Your task to perform on an android device: manage bookmarks in the chrome app Image 0: 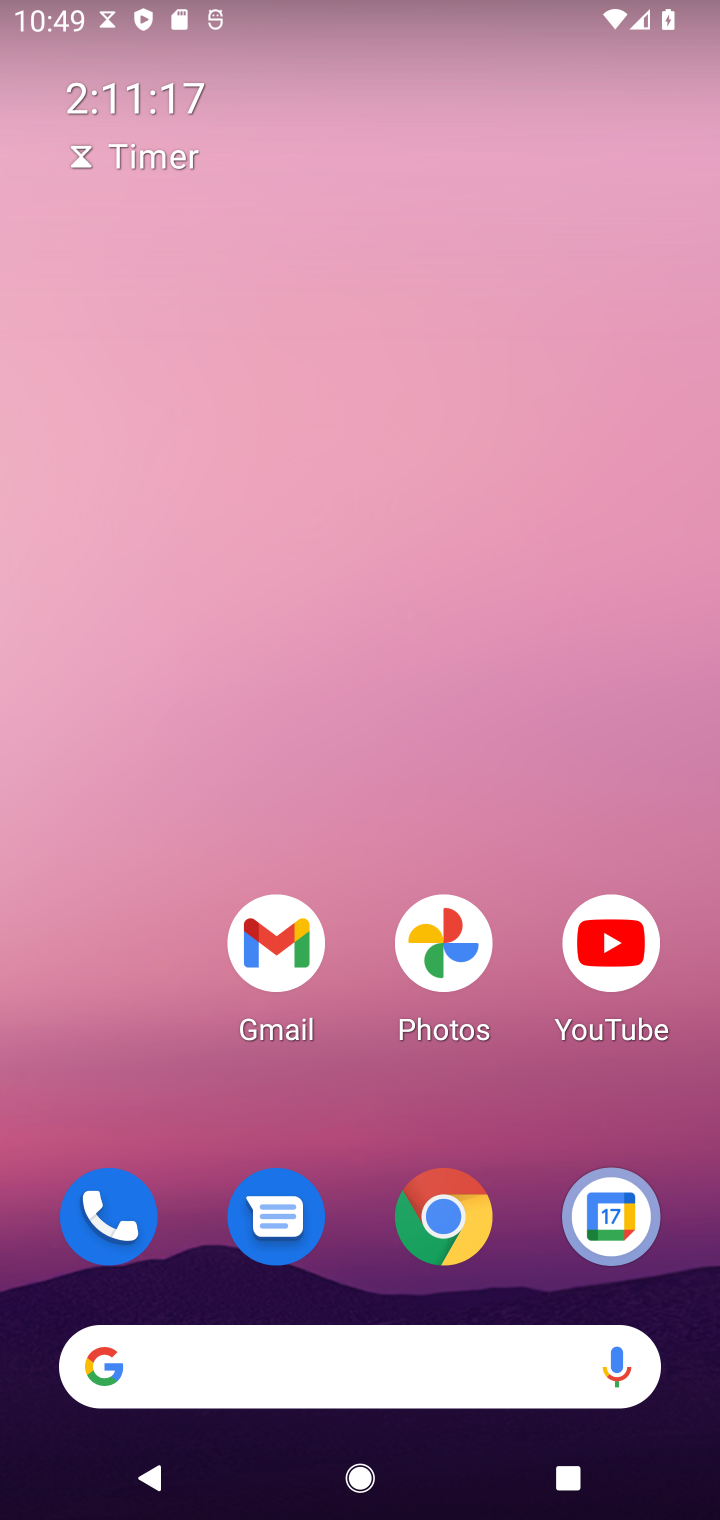
Step 0: click (469, 1212)
Your task to perform on an android device: manage bookmarks in the chrome app Image 1: 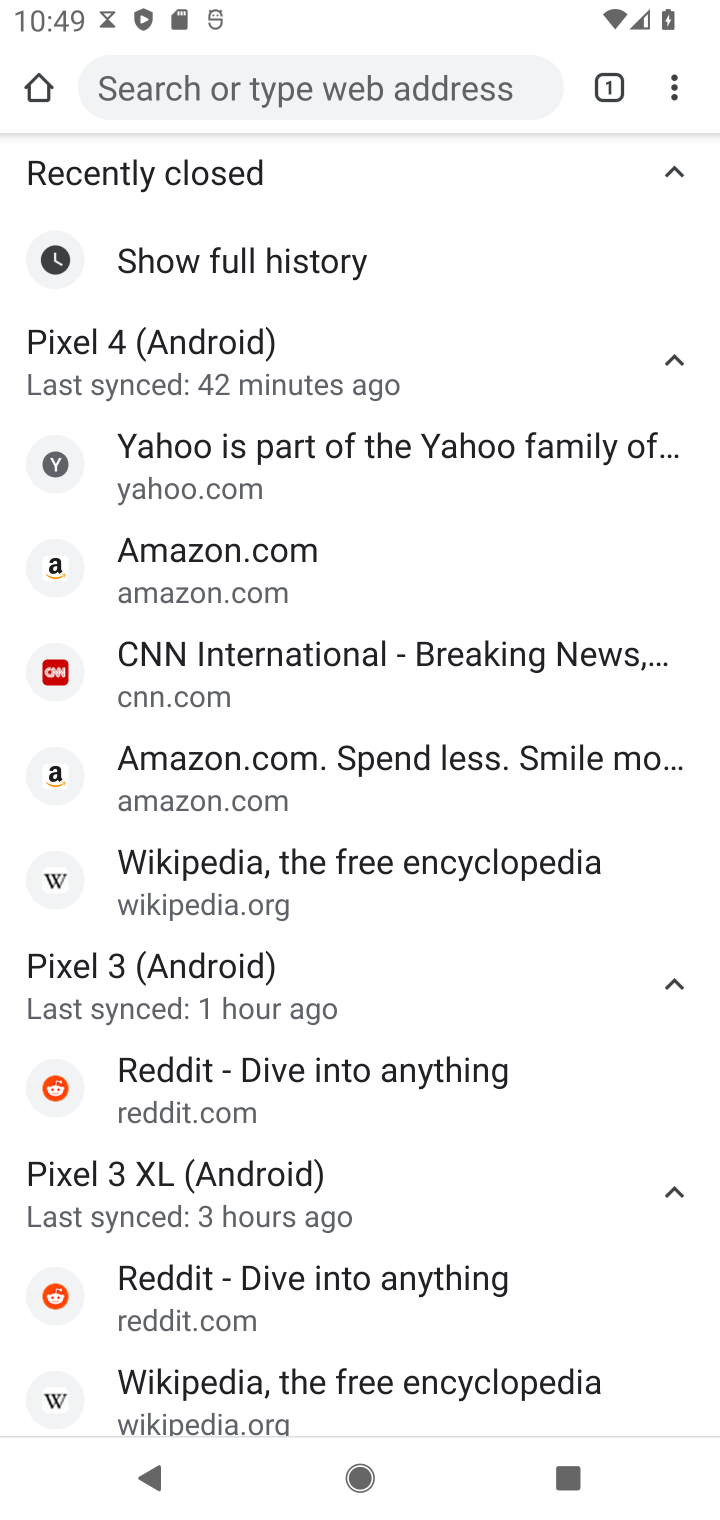
Step 1: drag from (673, 70) to (442, 614)
Your task to perform on an android device: manage bookmarks in the chrome app Image 2: 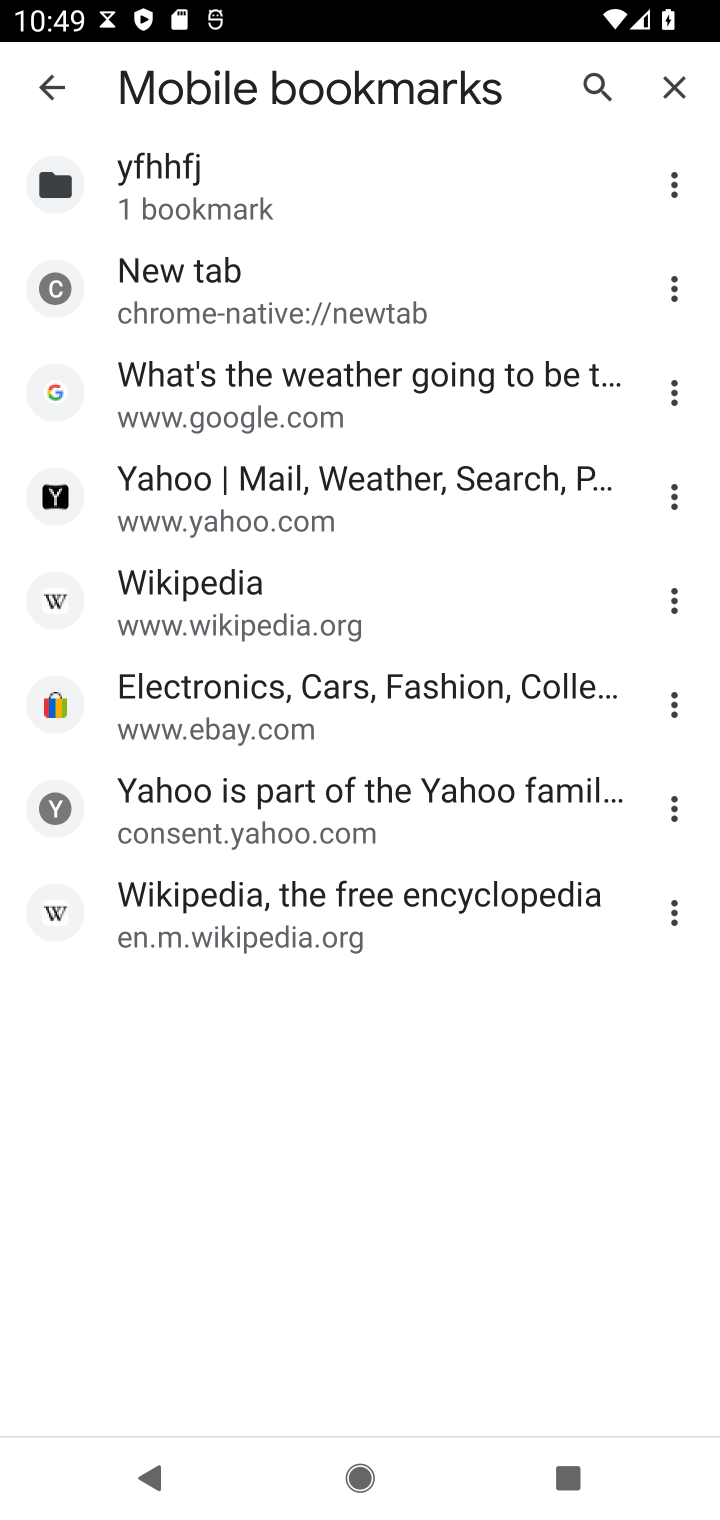
Step 2: click (673, 482)
Your task to perform on an android device: manage bookmarks in the chrome app Image 3: 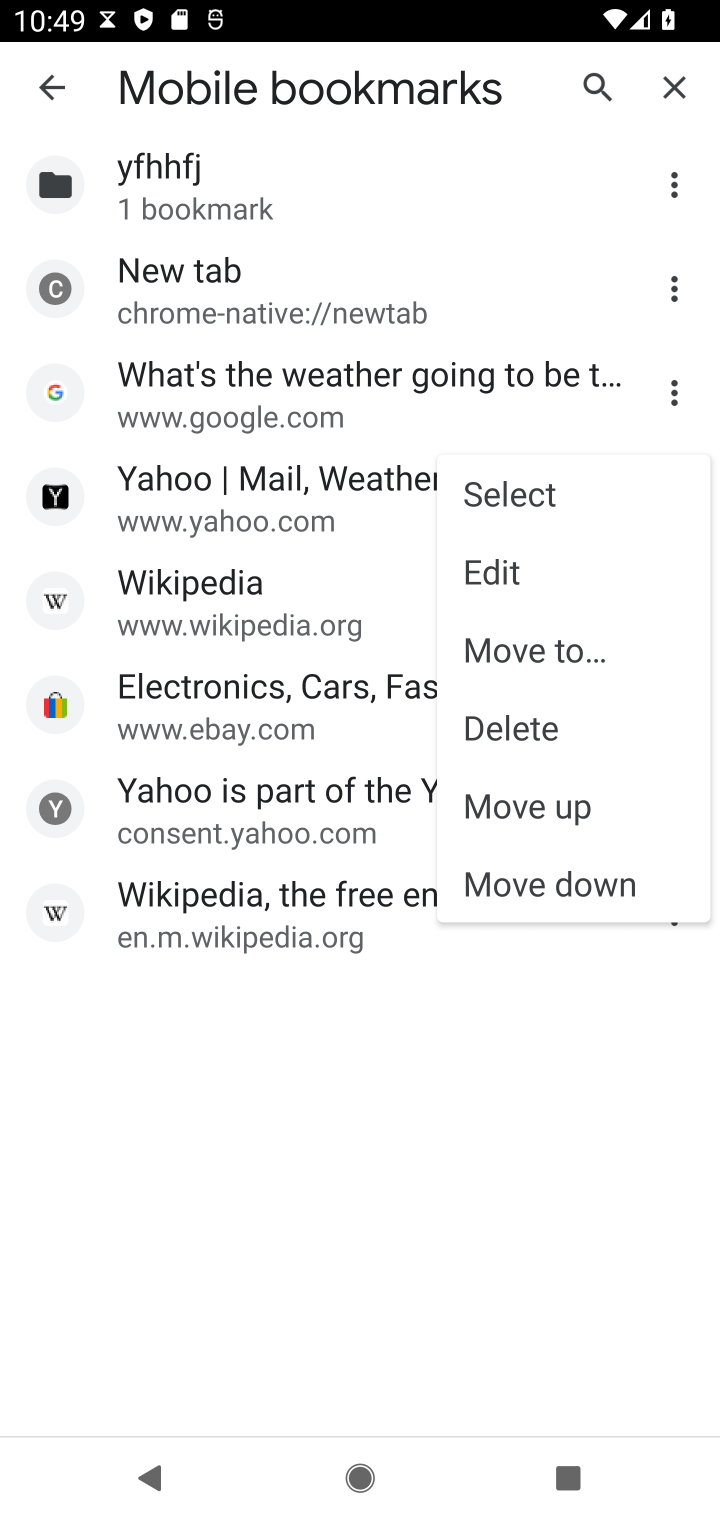
Step 3: click (548, 731)
Your task to perform on an android device: manage bookmarks in the chrome app Image 4: 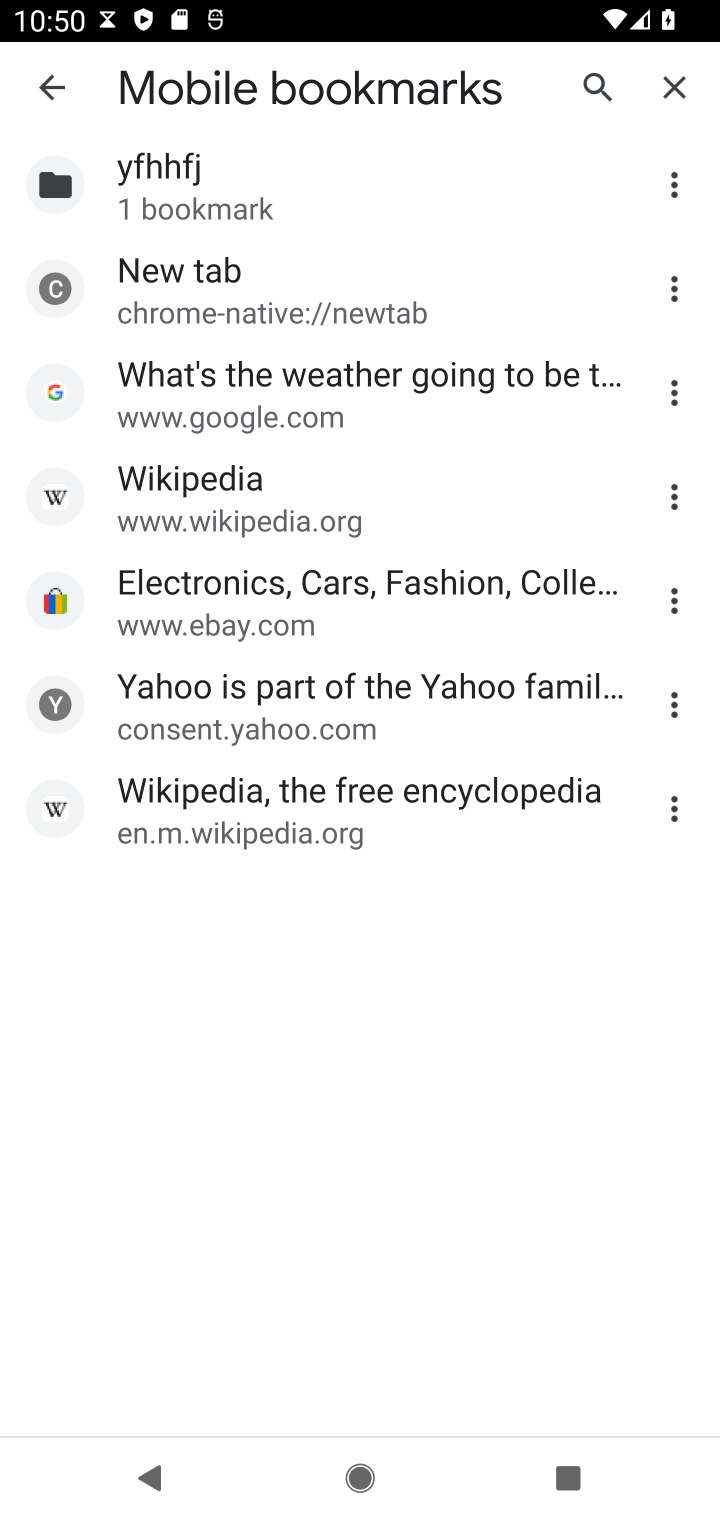
Step 4: task complete